Your task to perform on an android device: empty trash in google photos Image 0: 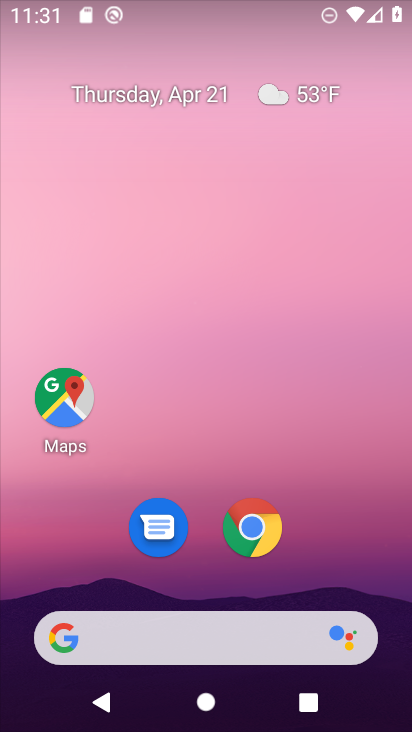
Step 0: drag from (357, 556) to (344, 244)
Your task to perform on an android device: empty trash in google photos Image 1: 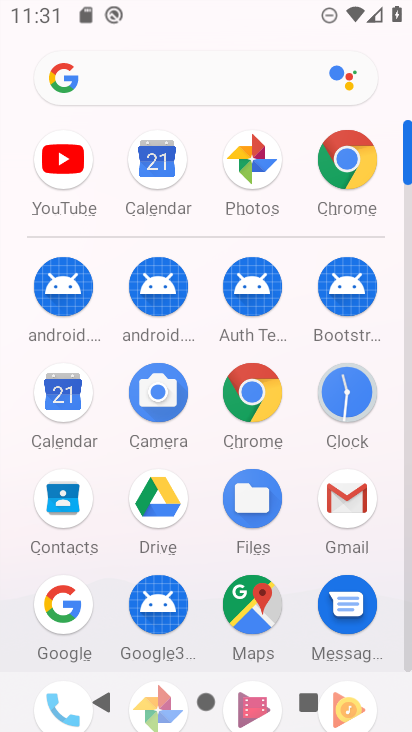
Step 1: drag from (389, 546) to (385, 224)
Your task to perform on an android device: empty trash in google photos Image 2: 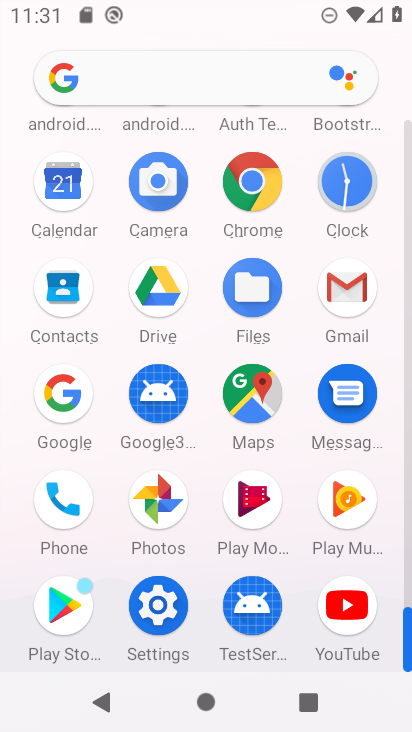
Step 2: click (152, 498)
Your task to perform on an android device: empty trash in google photos Image 3: 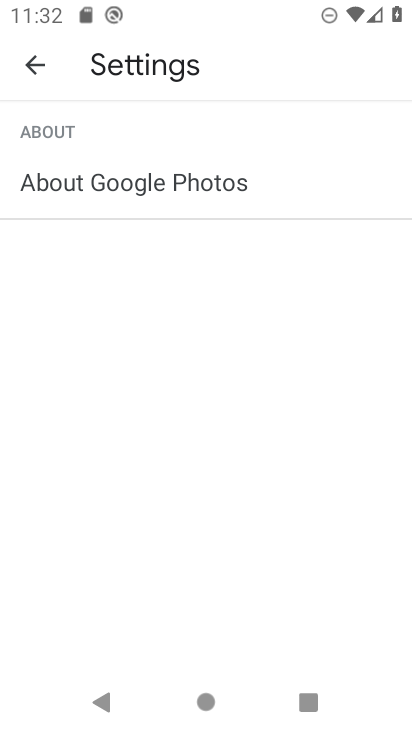
Step 3: click (36, 56)
Your task to perform on an android device: empty trash in google photos Image 4: 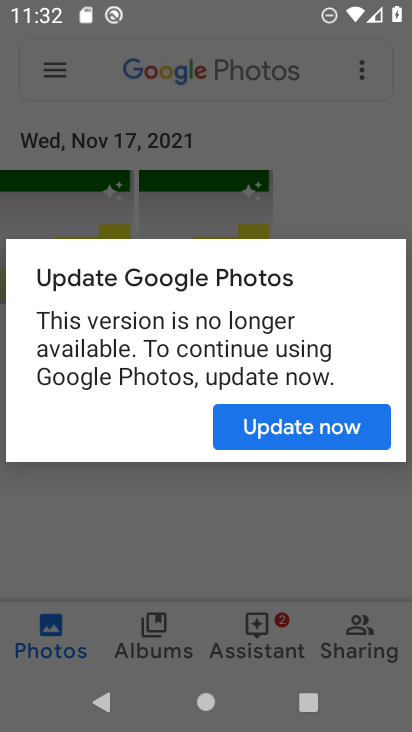
Step 4: click (315, 418)
Your task to perform on an android device: empty trash in google photos Image 5: 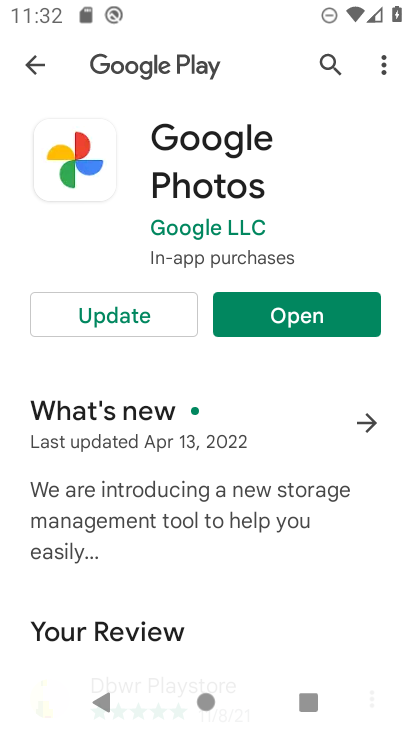
Step 5: click (125, 319)
Your task to perform on an android device: empty trash in google photos Image 6: 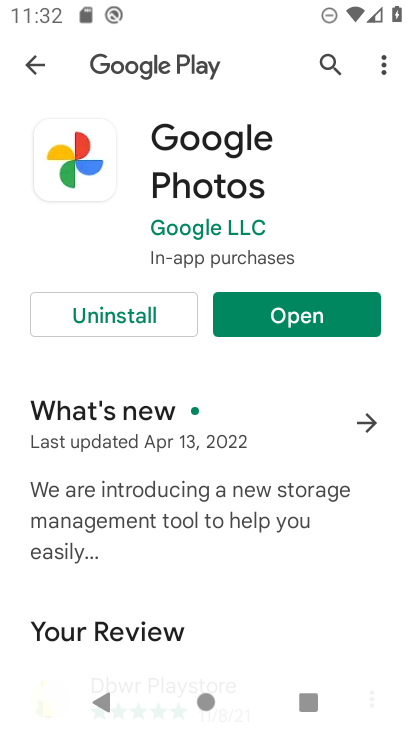
Step 6: click (307, 320)
Your task to perform on an android device: empty trash in google photos Image 7: 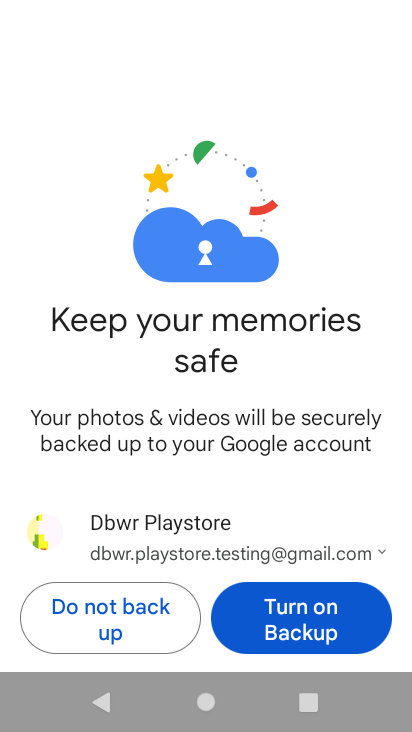
Step 7: click (327, 625)
Your task to perform on an android device: empty trash in google photos Image 8: 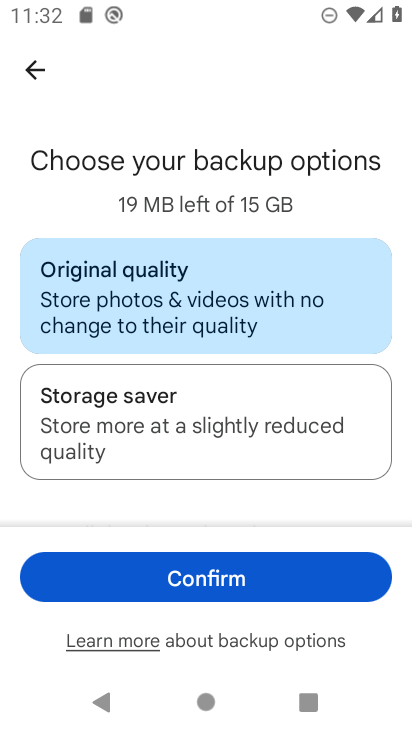
Step 8: click (326, 570)
Your task to perform on an android device: empty trash in google photos Image 9: 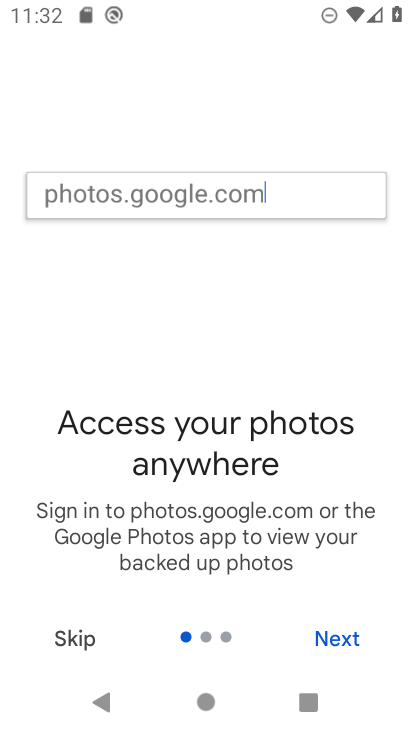
Step 9: click (345, 634)
Your task to perform on an android device: empty trash in google photos Image 10: 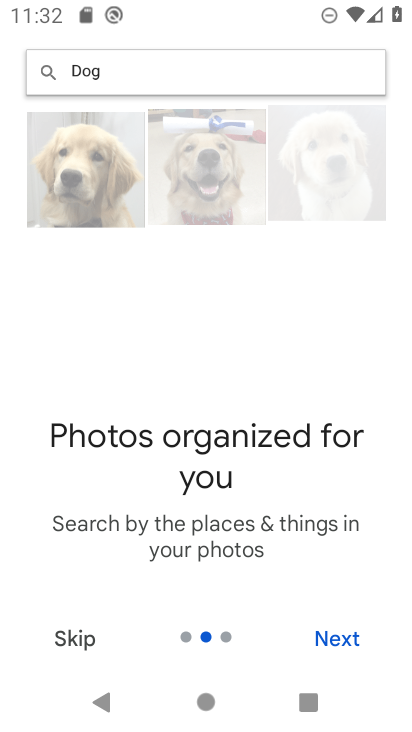
Step 10: click (352, 643)
Your task to perform on an android device: empty trash in google photos Image 11: 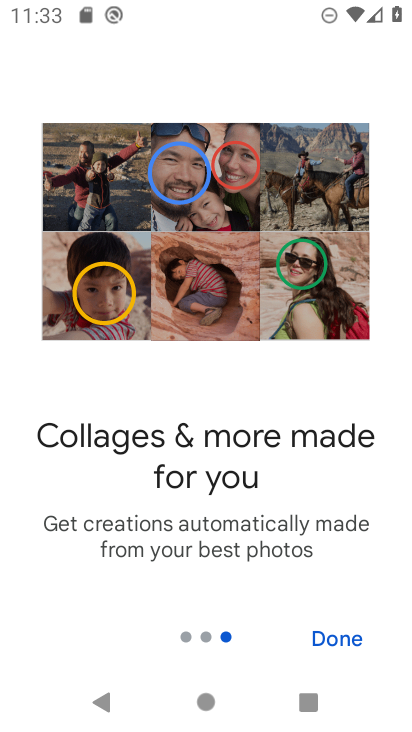
Step 11: click (333, 636)
Your task to perform on an android device: empty trash in google photos Image 12: 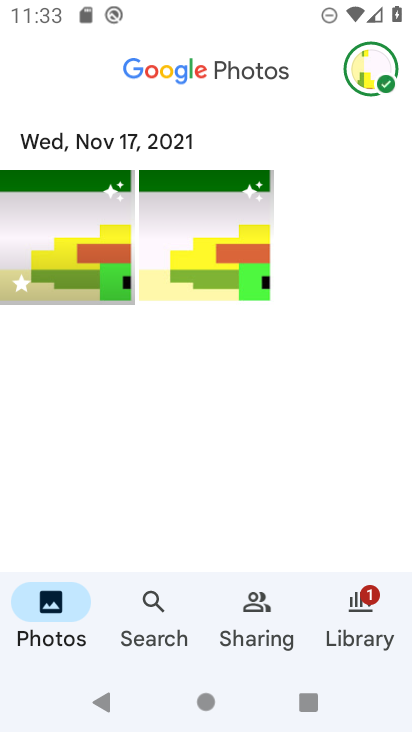
Step 12: click (363, 625)
Your task to perform on an android device: empty trash in google photos Image 13: 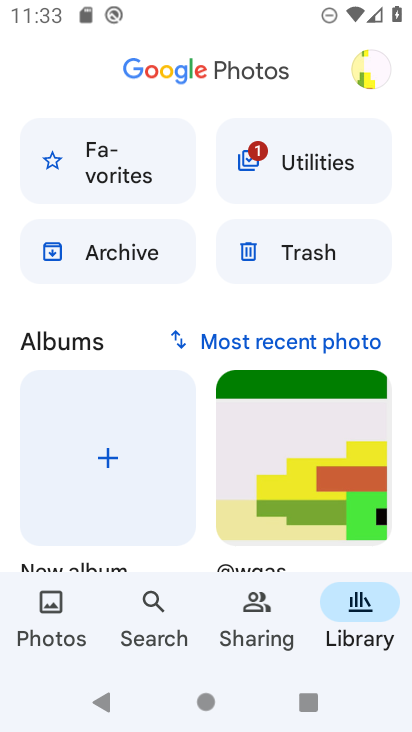
Step 13: click (316, 254)
Your task to perform on an android device: empty trash in google photos Image 14: 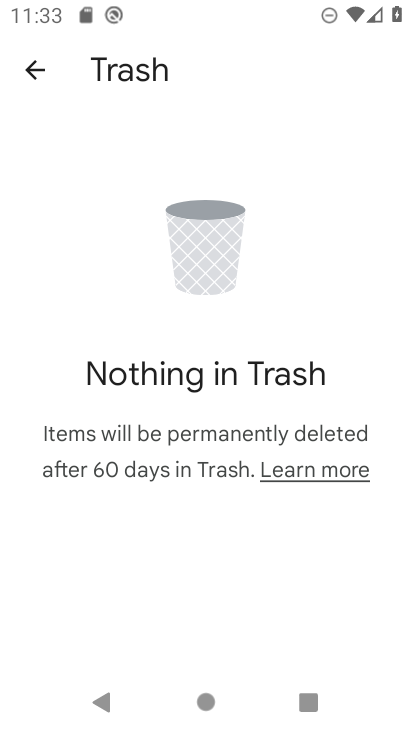
Step 14: task complete